Your task to perform on an android device: change the upload size in google photos Image 0: 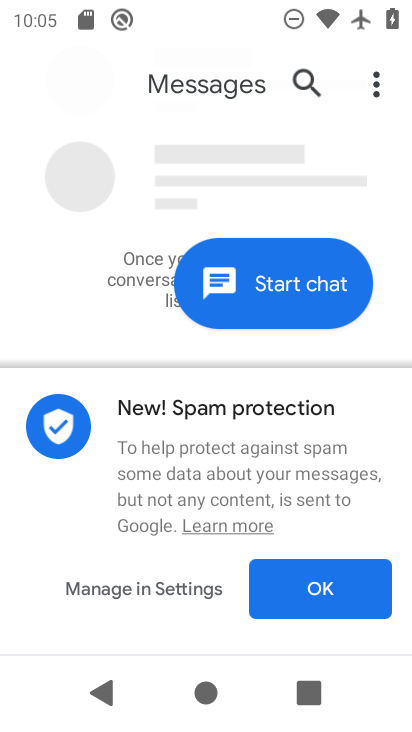
Step 0: press home button
Your task to perform on an android device: change the upload size in google photos Image 1: 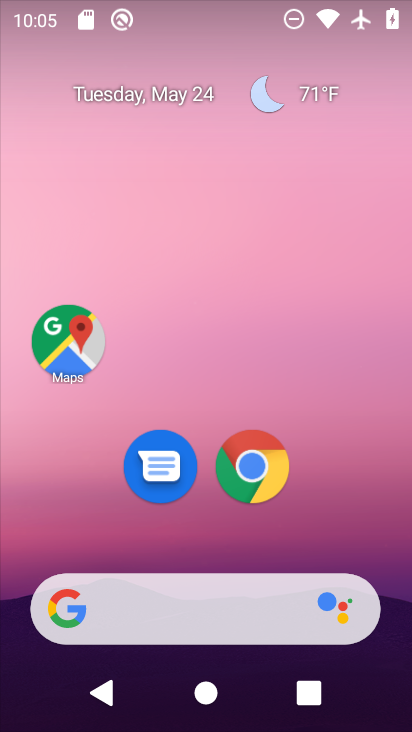
Step 1: drag from (185, 544) to (211, 17)
Your task to perform on an android device: change the upload size in google photos Image 2: 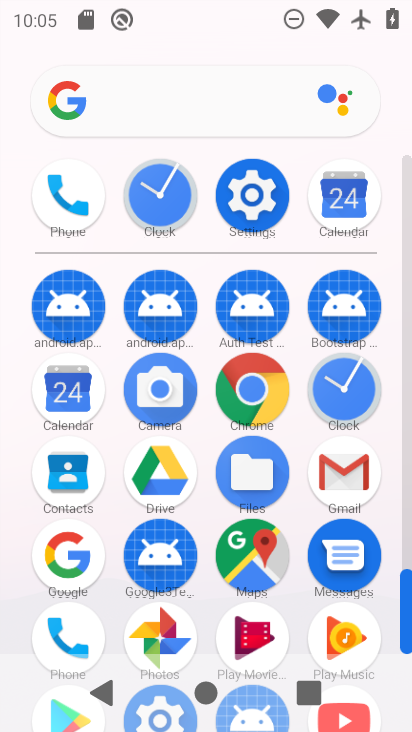
Step 2: click (172, 637)
Your task to perform on an android device: change the upload size in google photos Image 3: 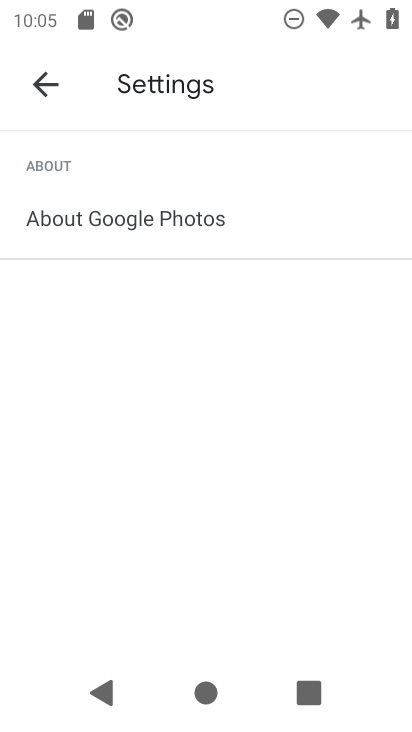
Step 3: click (42, 87)
Your task to perform on an android device: change the upload size in google photos Image 4: 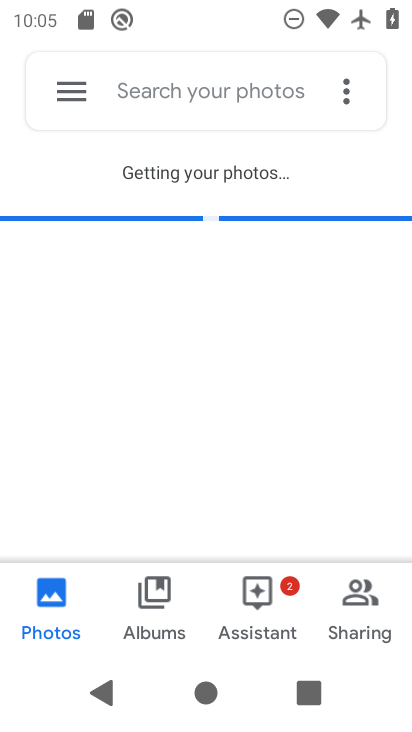
Step 4: click (63, 92)
Your task to perform on an android device: change the upload size in google photos Image 5: 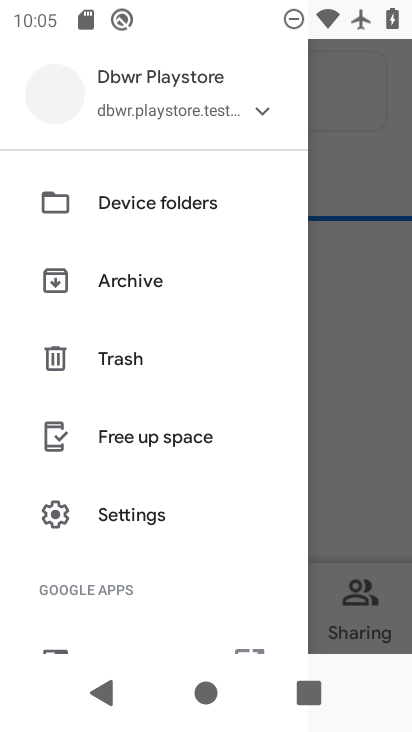
Step 5: click (154, 526)
Your task to perform on an android device: change the upload size in google photos Image 6: 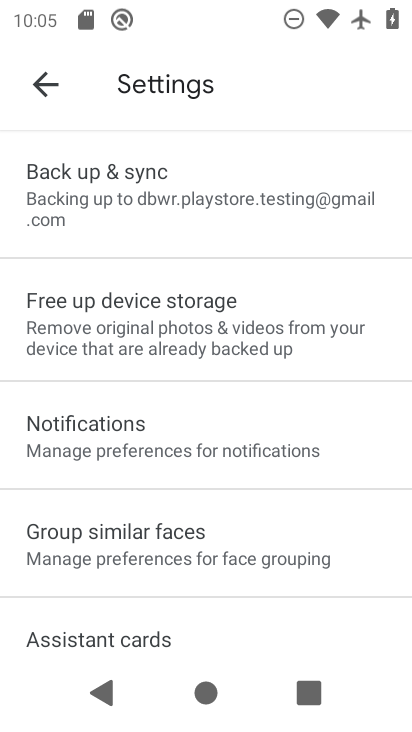
Step 6: click (166, 447)
Your task to perform on an android device: change the upload size in google photos Image 7: 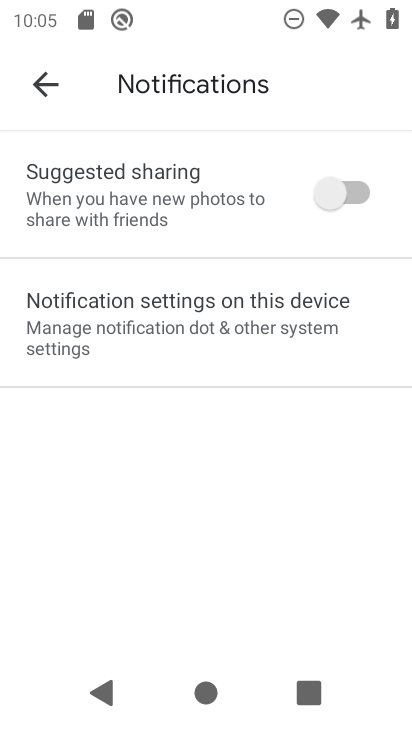
Step 7: click (42, 77)
Your task to perform on an android device: change the upload size in google photos Image 8: 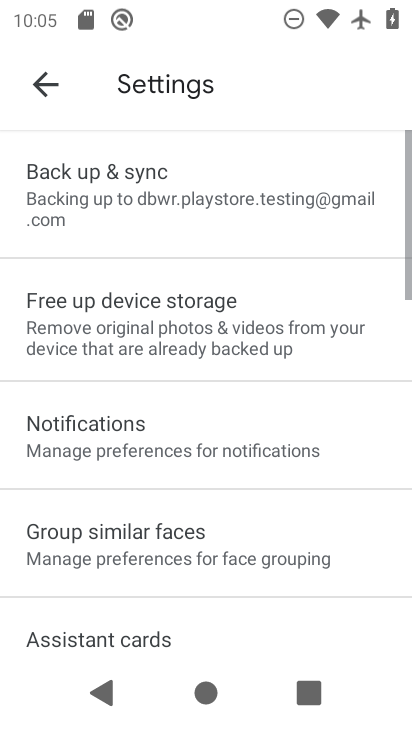
Step 8: click (169, 176)
Your task to perform on an android device: change the upload size in google photos Image 9: 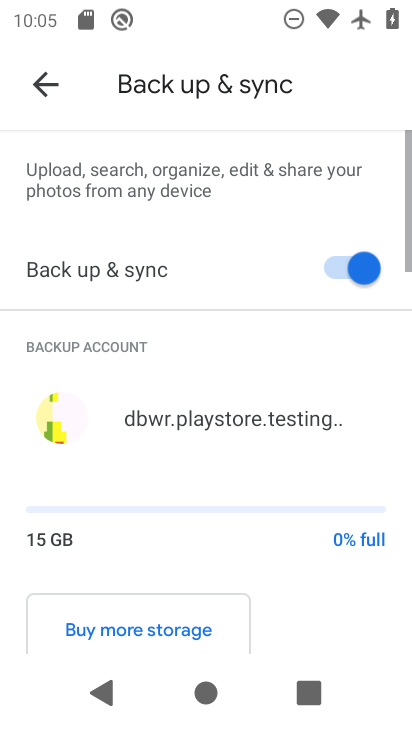
Step 9: drag from (185, 460) to (204, 169)
Your task to perform on an android device: change the upload size in google photos Image 10: 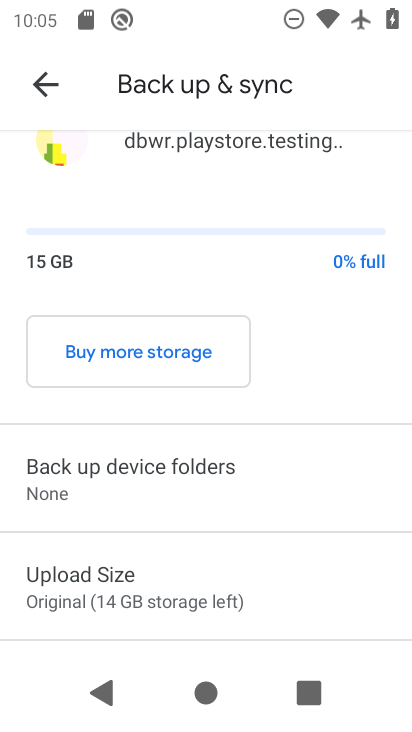
Step 10: drag from (215, 466) to (240, 303)
Your task to perform on an android device: change the upload size in google photos Image 11: 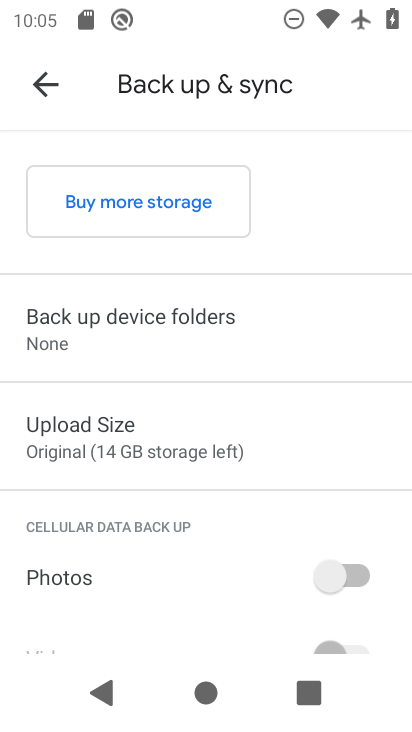
Step 11: click (163, 460)
Your task to perform on an android device: change the upload size in google photos Image 12: 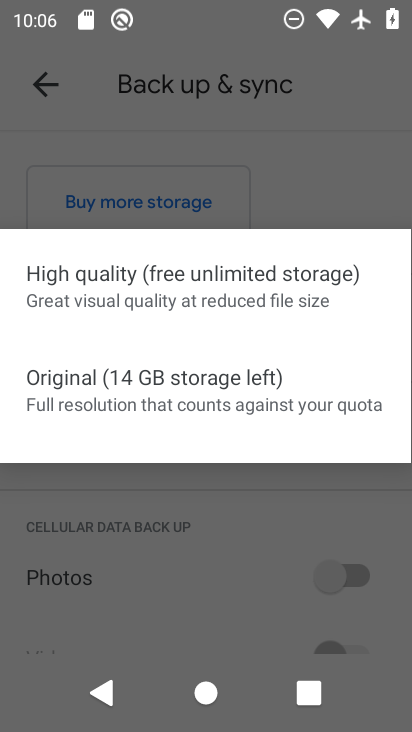
Step 12: click (162, 411)
Your task to perform on an android device: change the upload size in google photos Image 13: 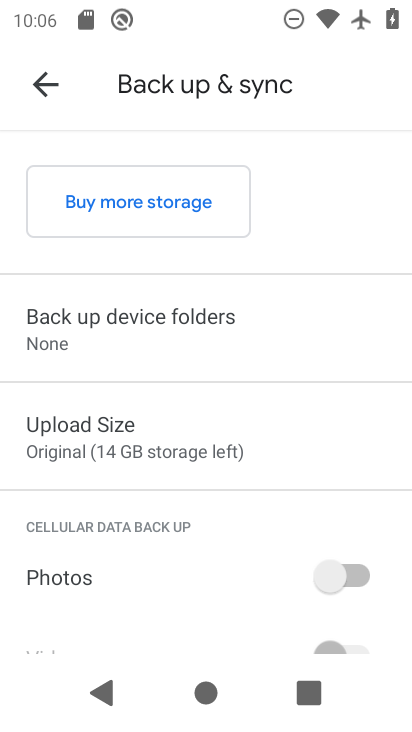
Step 13: task complete